Your task to perform on an android device: star an email in the gmail app Image 0: 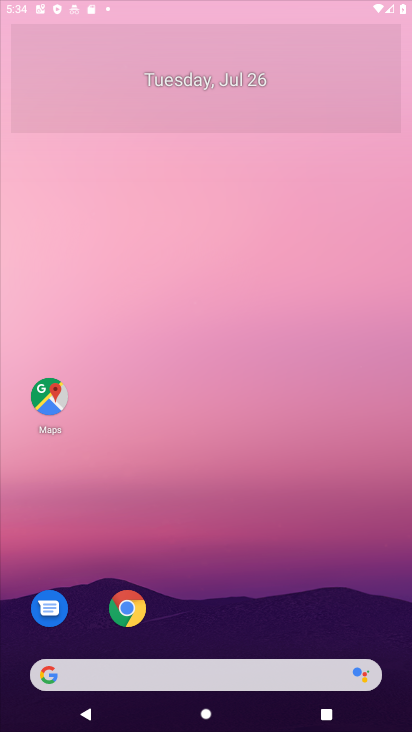
Step 0: press home button
Your task to perform on an android device: star an email in the gmail app Image 1: 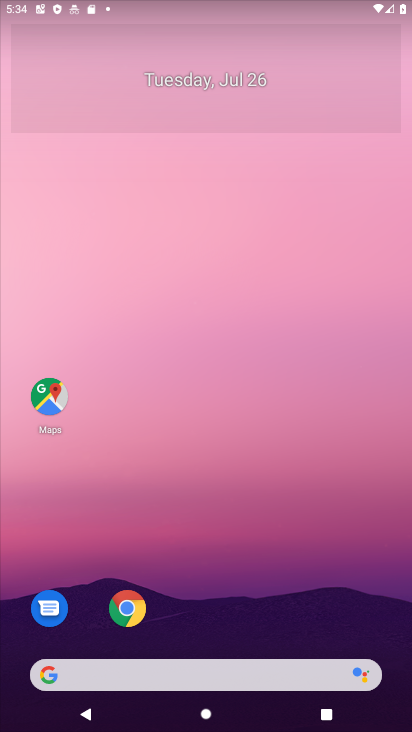
Step 1: drag from (240, 632) to (160, 202)
Your task to perform on an android device: star an email in the gmail app Image 2: 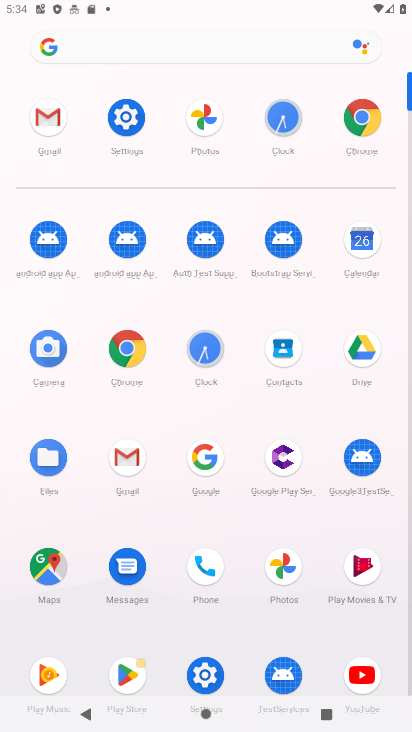
Step 2: click (33, 128)
Your task to perform on an android device: star an email in the gmail app Image 3: 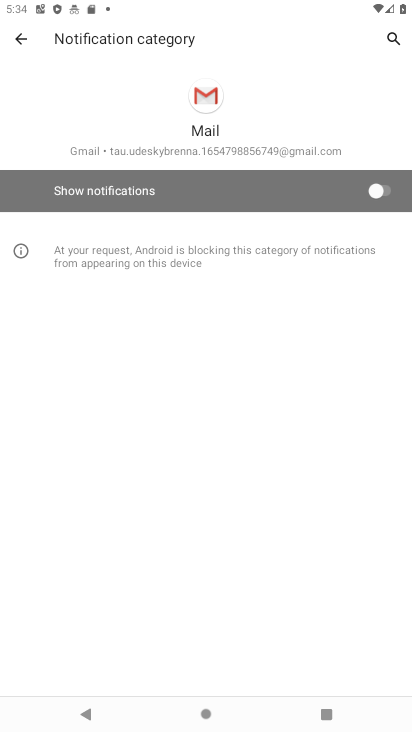
Step 3: click (17, 42)
Your task to perform on an android device: star an email in the gmail app Image 4: 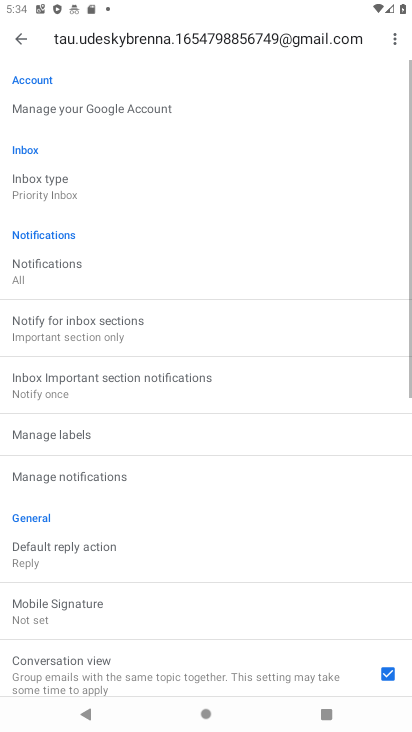
Step 4: click (17, 42)
Your task to perform on an android device: star an email in the gmail app Image 5: 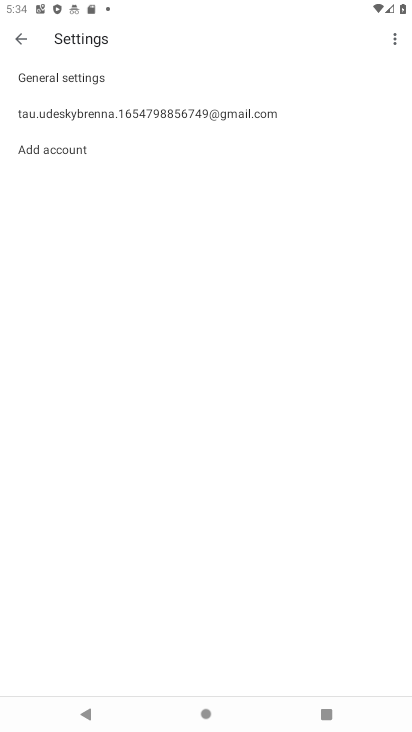
Step 5: click (17, 42)
Your task to perform on an android device: star an email in the gmail app Image 6: 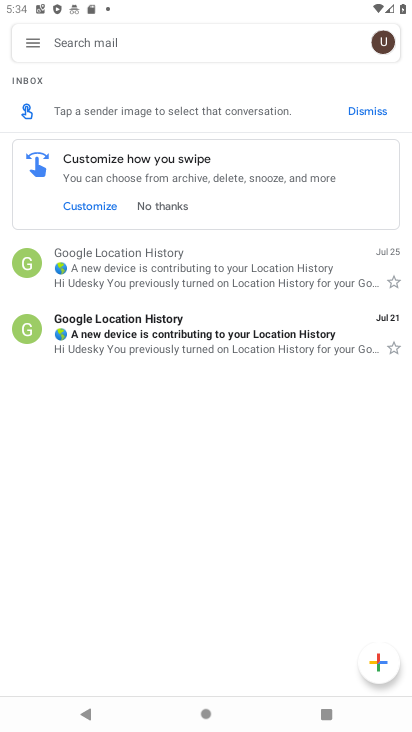
Step 6: click (157, 265)
Your task to perform on an android device: star an email in the gmail app Image 7: 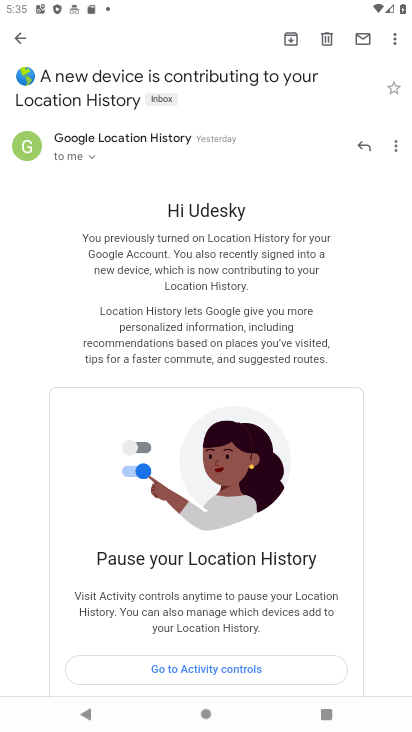
Step 7: click (392, 87)
Your task to perform on an android device: star an email in the gmail app Image 8: 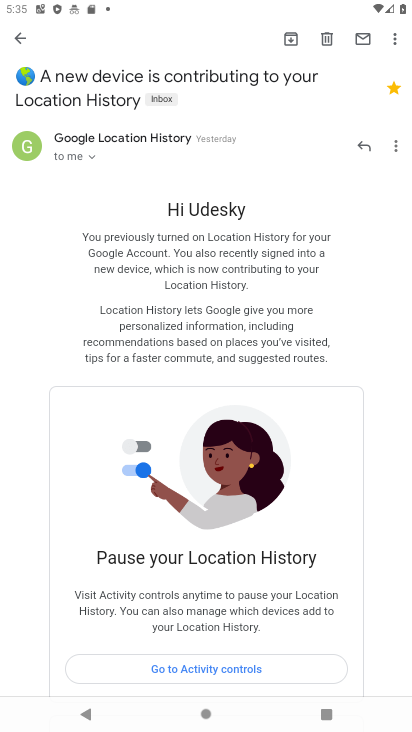
Step 8: task complete